Your task to perform on an android device: Show me productivity apps on the Play Store Image 0: 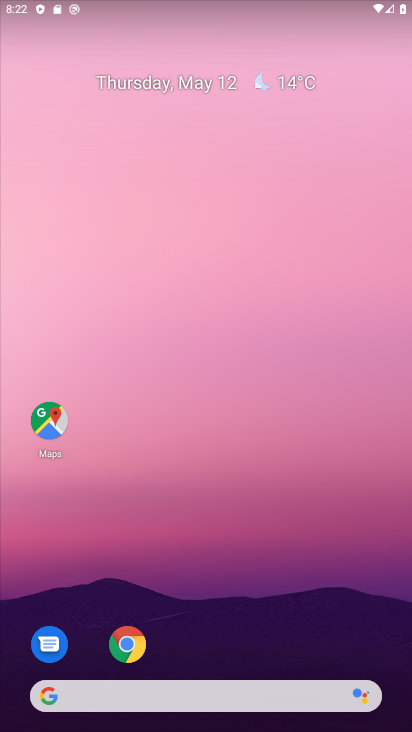
Step 0: drag from (272, 442) to (261, 28)
Your task to perform on an android device: Show me productivity apps on the Play Store Image 1: 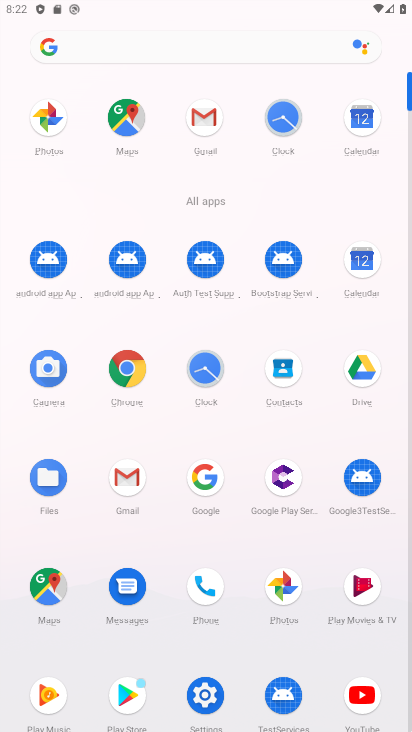
Step 1: click (130, 690)
Your task to perform on an android device: Show me productivity apps on the Play Store Image 2: 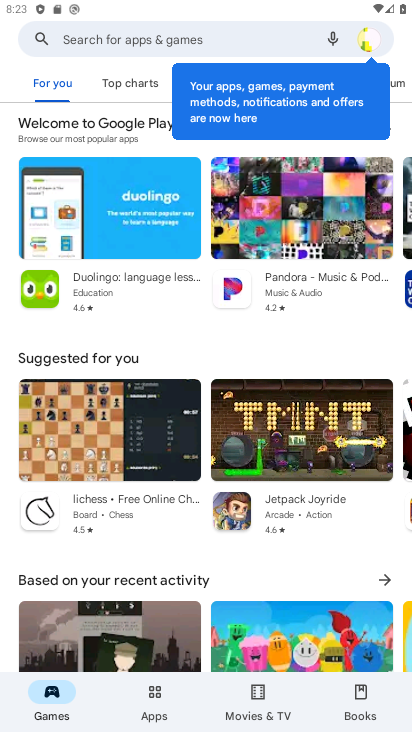
Step 2: click (162, 707)
Your task to perform on an android device: Show me productivity apps on the Play Store Image 3: 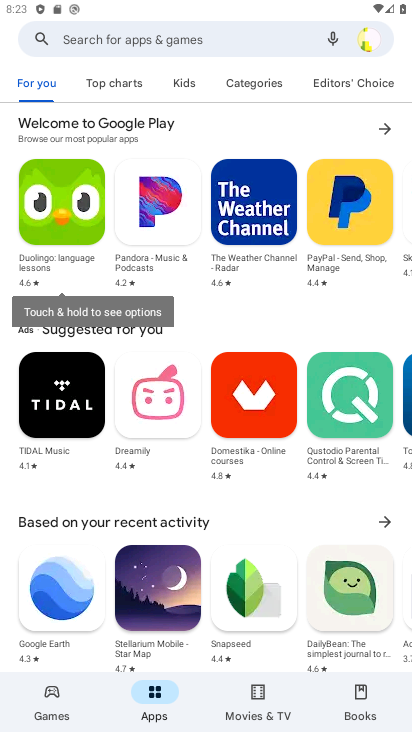
Step 3: task complete